Your task to perform on an android device: What's a good restaurant in Las Vegas? Image 0: 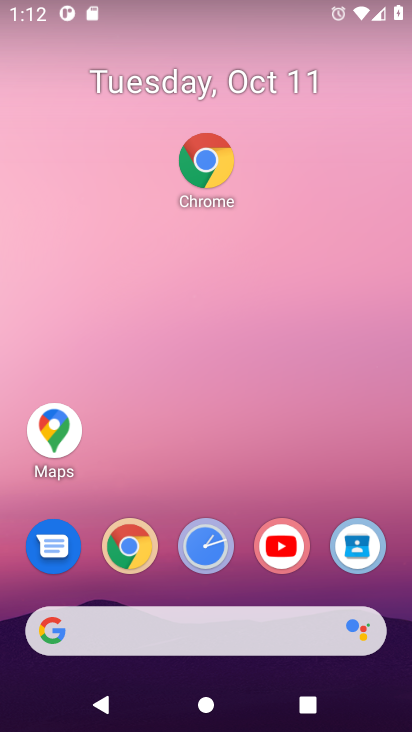
Step 0: click (122, 553)
Your task to perform on an android device: What's a good restaurant in Las Vegas? Image 1: 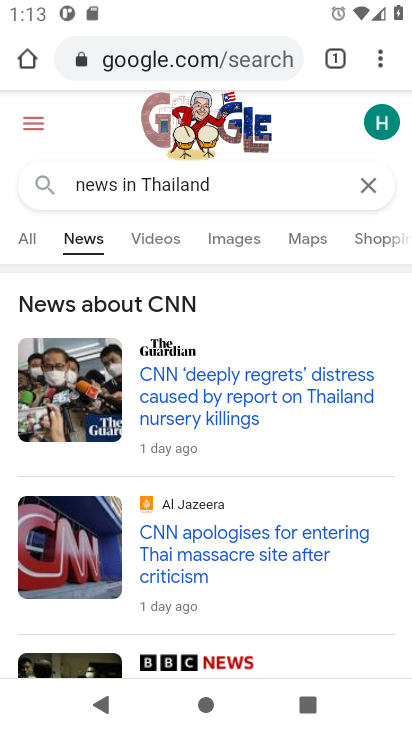
Step 1: click (230, 183)
Your task to perform on an android device: What's a good restaurant in Las Vegas? Image 2: 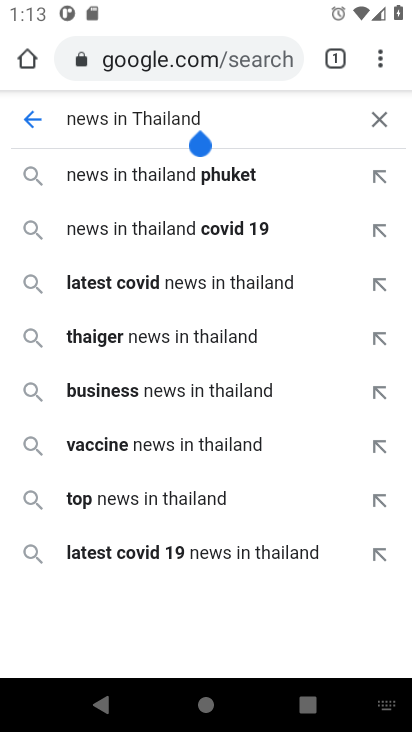
Step 2: click (381, 115)
Your task to perform on an android device: What's a good restaurant in Las Vegas? Image 3: 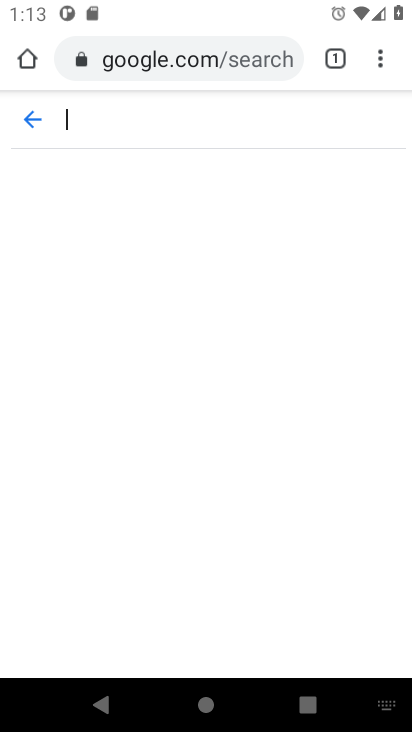
Step 3: type "good restaurant in Las Vegas"
Your task to perform on an android device: What's a good restaurant in Las Vegas? Image 4: 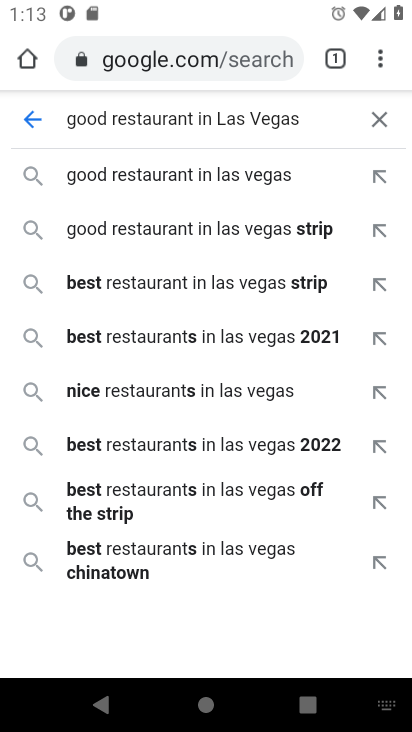
Step 4: press enter
Your task to perform on an android device: What's a good restaurant in Las Vegas? Image 5: 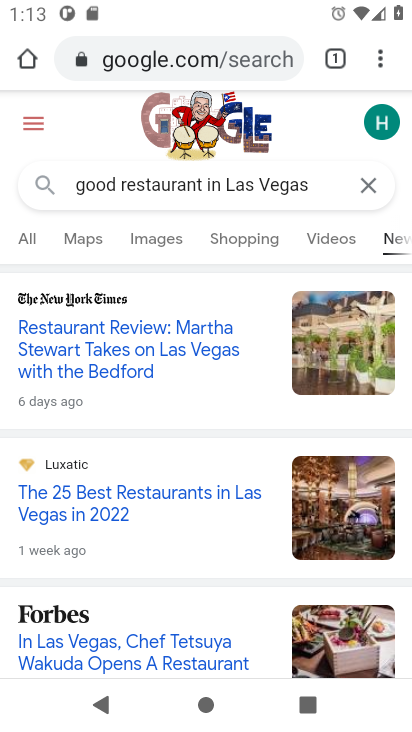
Step 5: drag from (246, 521) to (214, 204)
Your task to perform on an android device: What's a good restaurant in Las Vegas? Image 6: 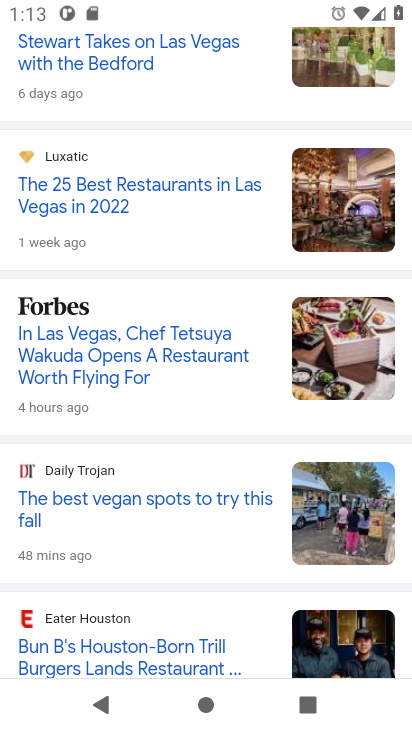
Step 6: drag from (197, 246) to (220, 574)
Your task to perform on an android device: What's a good restaurant in Las Vegas? Image 7: 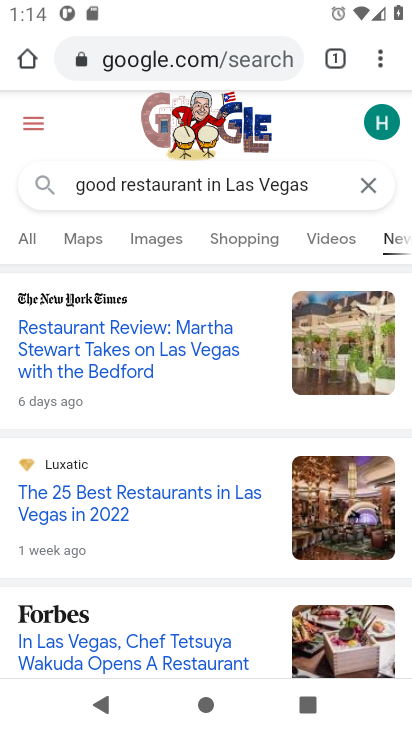
Step 7: click (30, 234)
Your task to perform on an android device: What's a good restaurant in Las Vegas? Image 8: 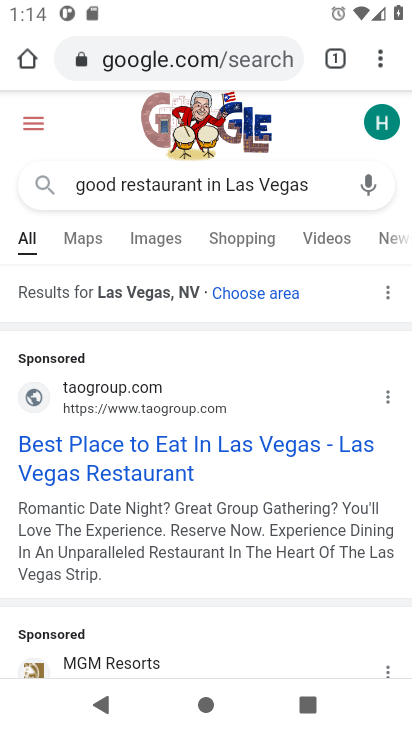
Step 8: task complete